Your task to perform on an android device: turn off priority inbox in the gmail app Image 0: 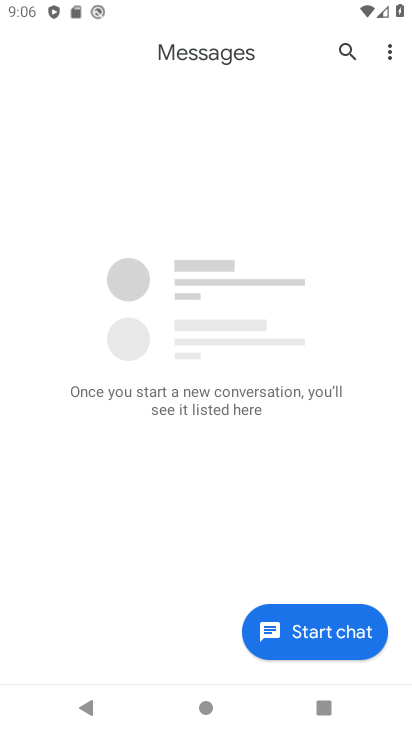
Step 0: press home button
Your task to perform on an android device: turn off priority inbox in the gmail app Image 1: 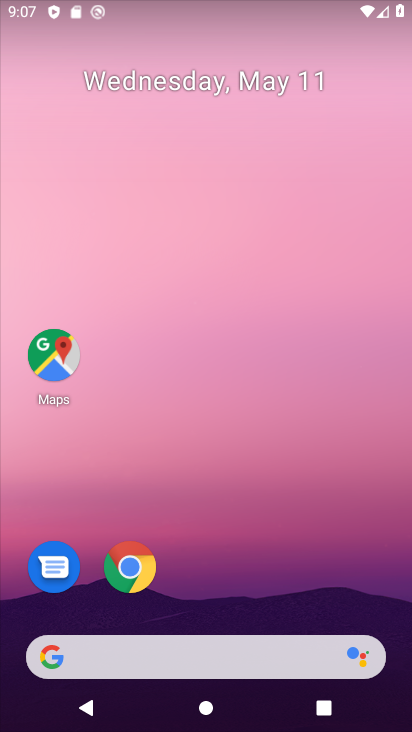
Step 1: drag from (257, 715) to (204, 136)
Your task to perform on an android device: turn off priority inbox in the gmail app Image 2: 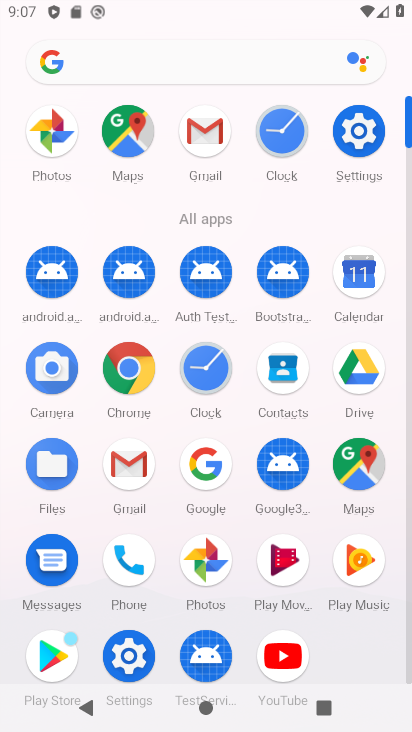
Step 2: click (200, 143)
Your task to perform on an android device: turn off priority inbox in the gmail app Image 3: 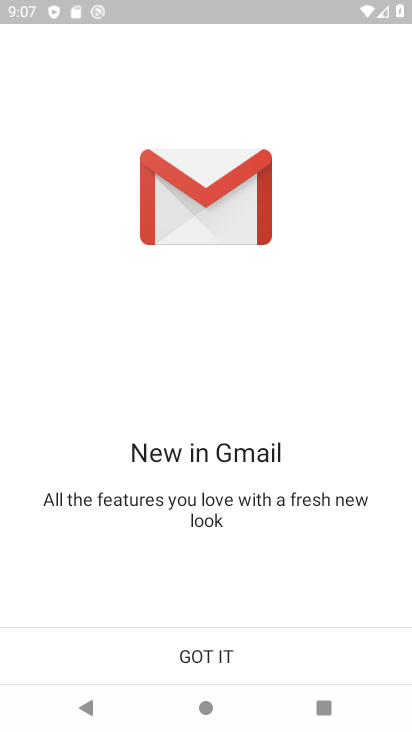
Step 3: click (272, 649)
Your task to perform on an android device: turn off priority inbox in the gmail app Image 4: 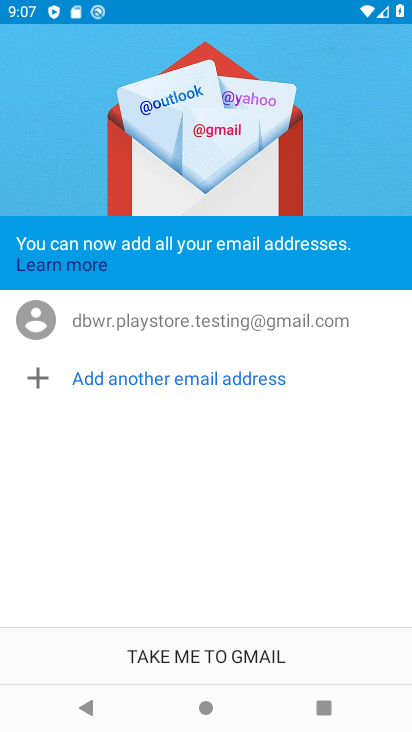
Step 4: click (272, 649)
Your task to perform on an android device: turn off priority inbox in the gmail app Image 5: 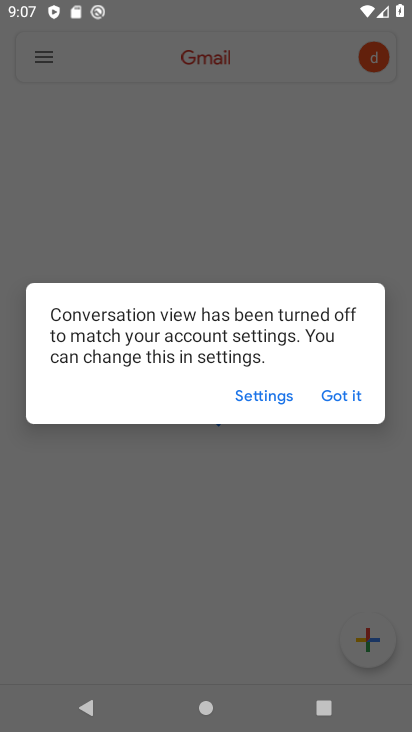
Step 5: click (356, 399)
Your task to perform on an android device: turn off priority inbox in the gmail app Image 6: 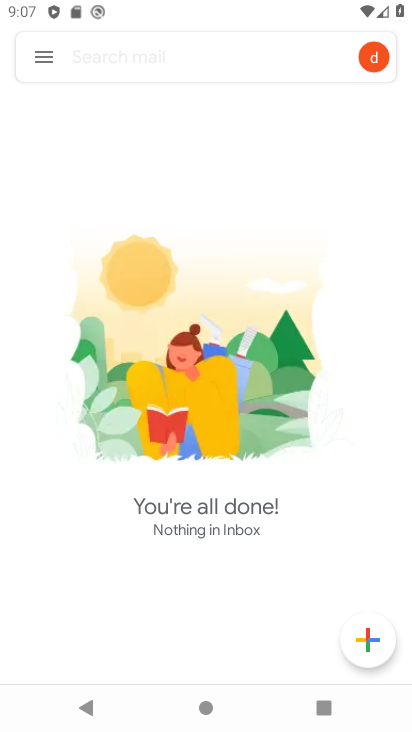
Step 6: click (47, 56)
Your task to perform on an android device: turn off priority inbox in the gmail app Image 7: 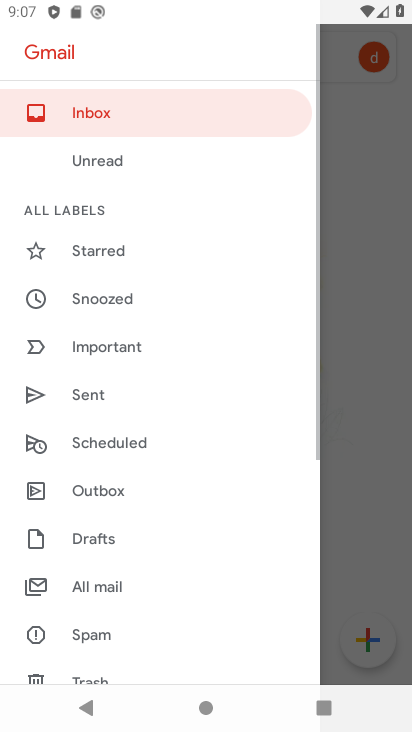
Step 7: drag from (204, 633) to (92, 19)
Your task to perform on an android device: turn off priority inbox in the gmail app Image 8: 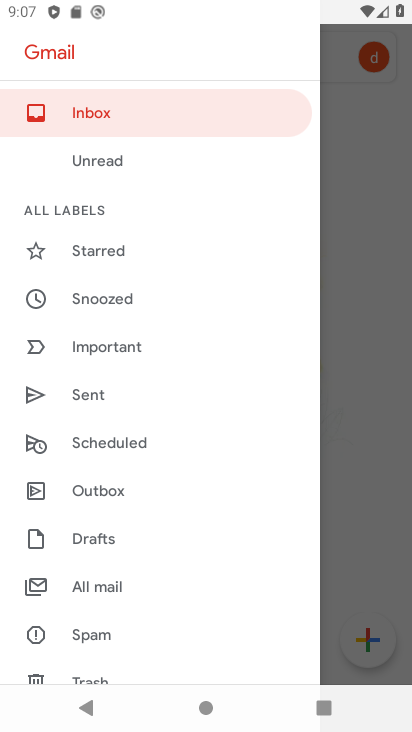
Step 8: drag from (51, 557) to (114, 62)
Your task to perform on an android device: turn off priority inbox in the gmail app Image 9: 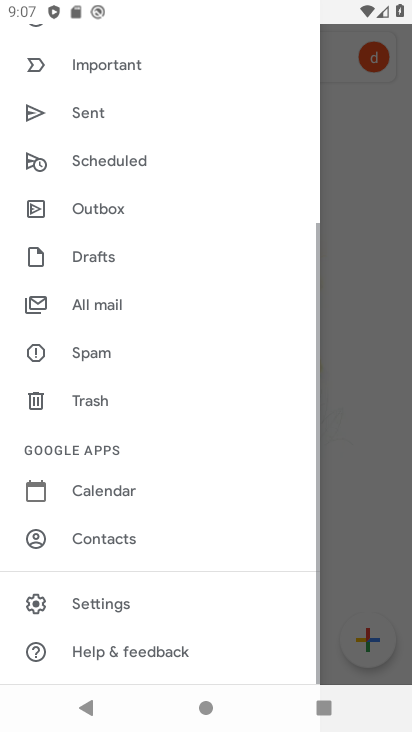
Step 9: drag from (137, 609) to (238, 39)
Your task to perform on an android device: turn off priority inbox in the gmail app Image 10: 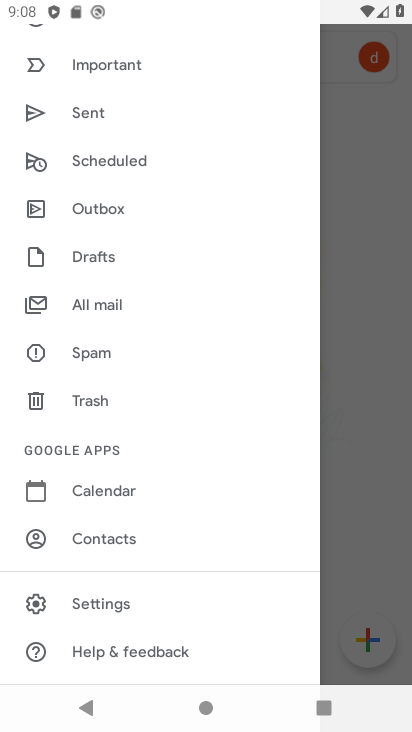
Step 10: click (111, 601)
Your task to perform on an android device: turn off priority inbox in the gmail app Image 11: 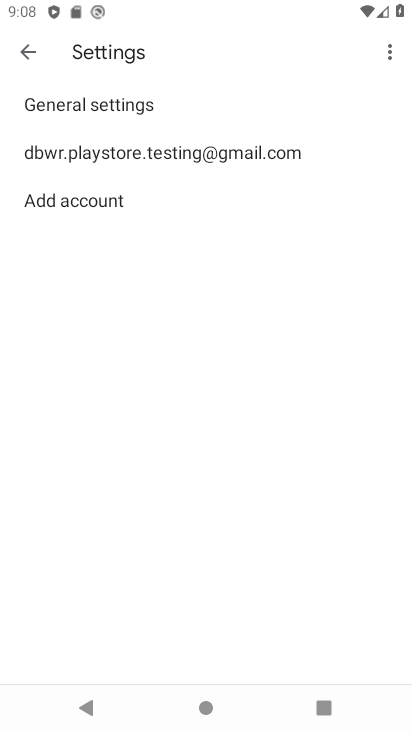
Step 11: click (239, 139)
Your task to perform on an android device: turn off priority inbox in the gmail app Image 12: 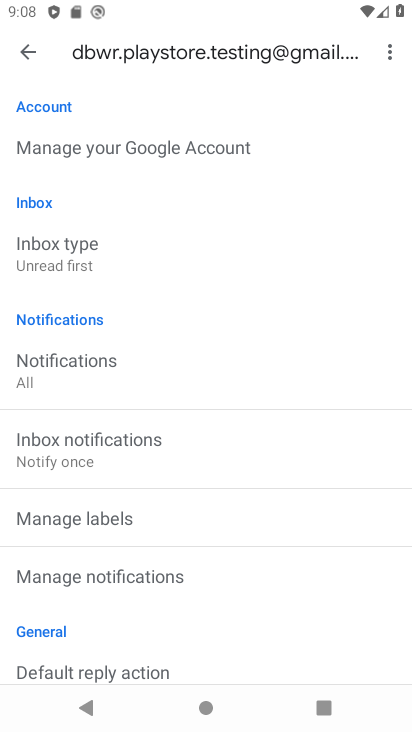
Step 12: click (69, 255)
Your task to perform on an android device: turn off priority inbox in the gmail app Image 13: 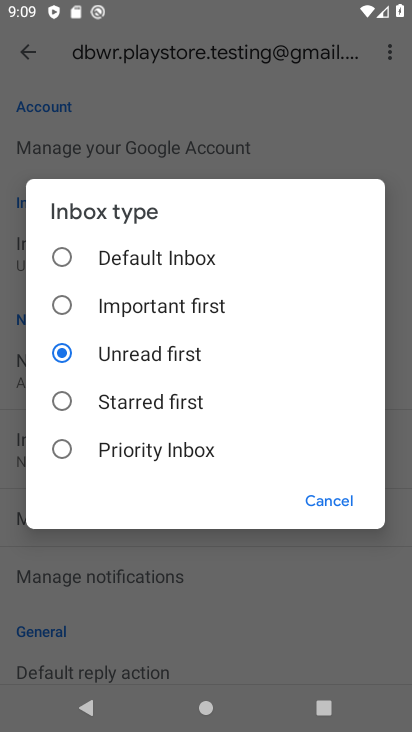
Step 13: task complete